Your task to perform on an android device: toggle translation in the chrome app Image 0: 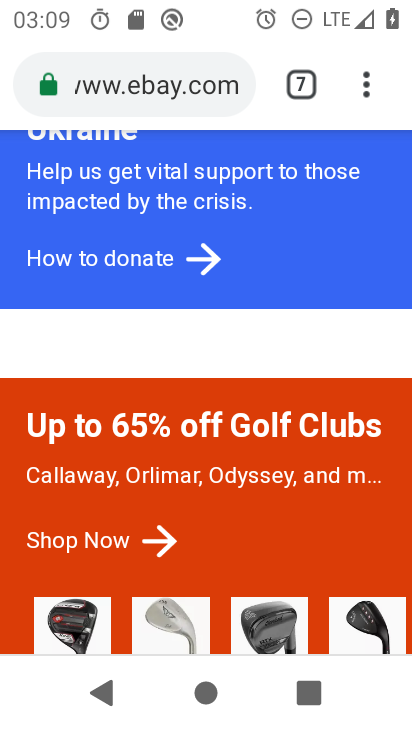
Step 0: press home button
Your task to perform on an android device: toggle translation in the chrome app Image 1: 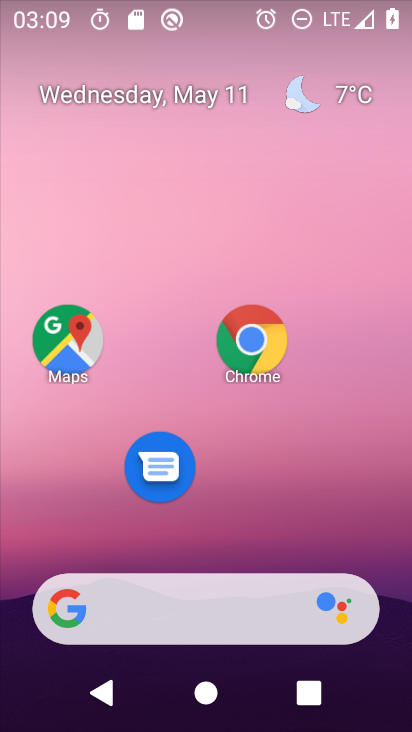
Step 1: click (254, 342)
Your task to perform on an android device: toggle translation in the chrome app Image 2: 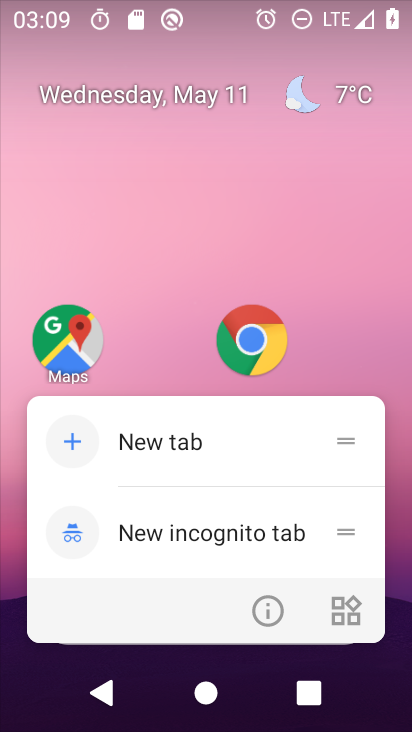
Step 2: click (254, 342)
Your task to perform on an android device: toggle translation in the chrome app Image 3: 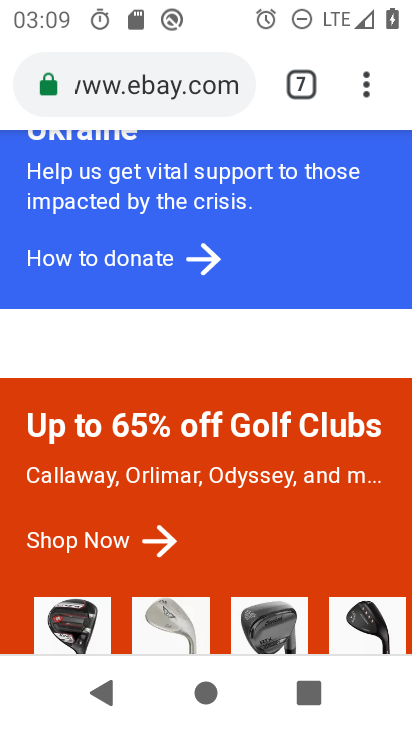
Step 3: drag from (365, 76) to (174, 524)
Your task to perform on an android device: toggle translation in the chrome app Image 4: 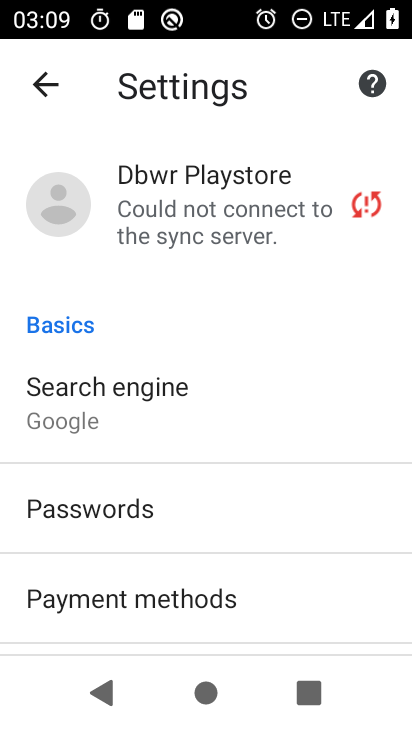
Step 4: drag from (162, 562) to (313, 202)
Your task to perform on an android device: toggle translation in the chrome app Image 5: 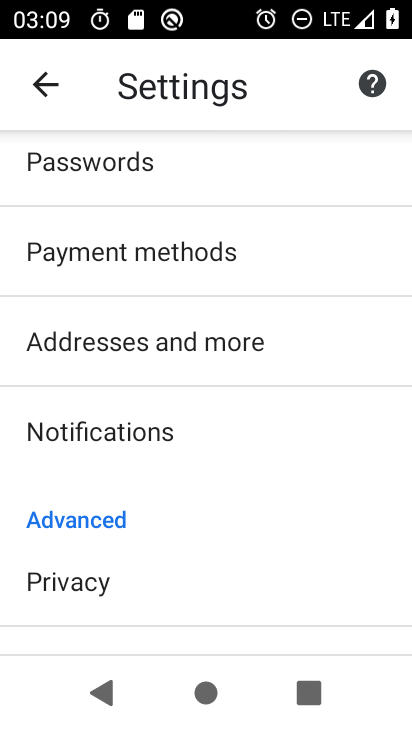
Step 5: drag from (169, 534) to (284, 254)
Your task to perform on an android device: toggle translation in the chrome app Image 6: 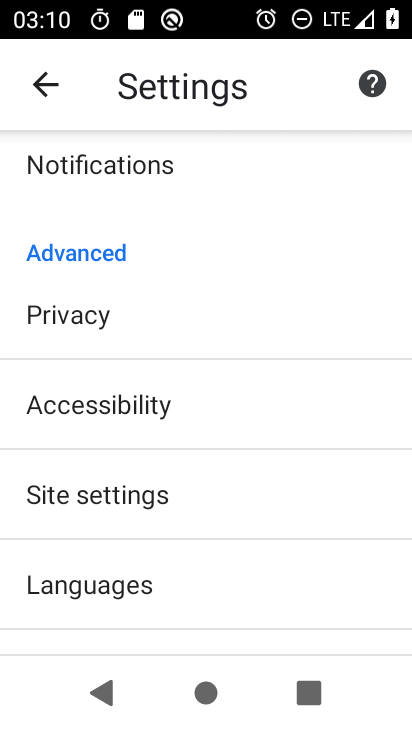
Step 6: click (126, 582)
Your task to perform on an android device: toggle translation in the chrome app Image 7: 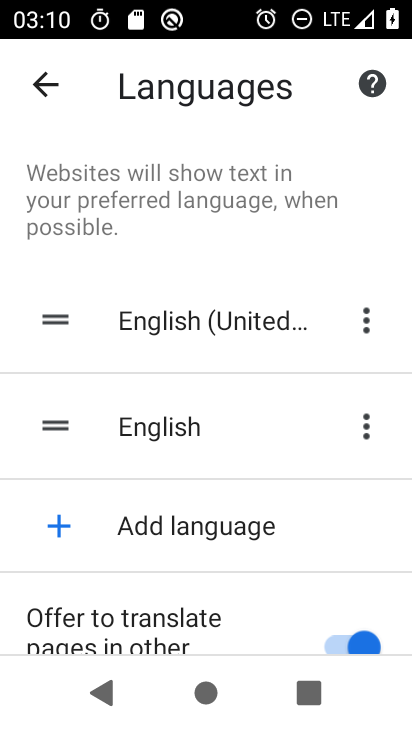
Step 7: task complete